Your task to perform on an android device: turn off improve location accuracy Image 0: 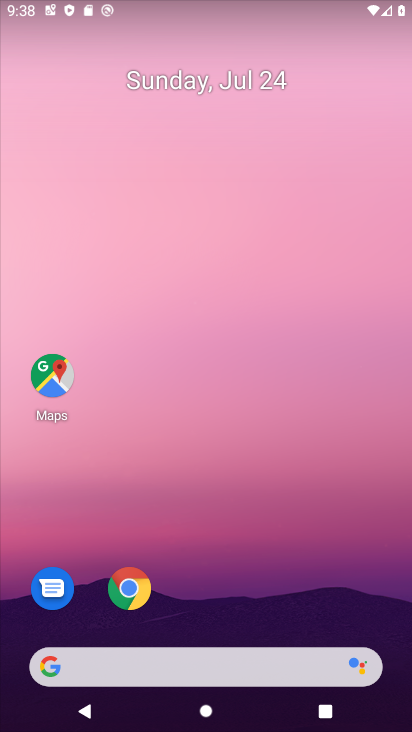
Step 0: drag from (264, 643) to (261, 1)
Your task to perform on an android device: turn off improve location accuracy Image 1: 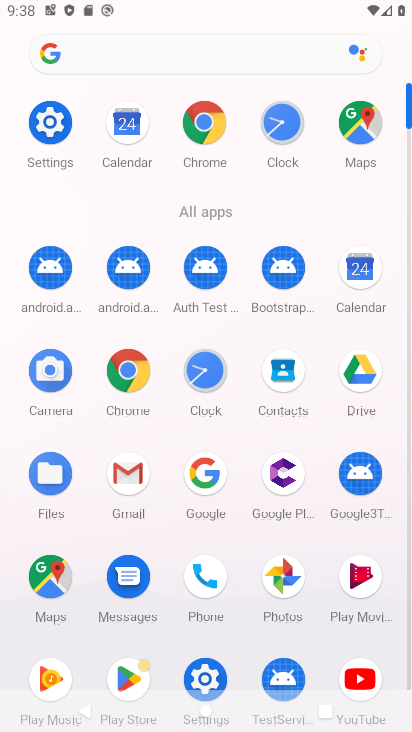
Step 1: click (40, 120)
Your task to perform on an android device: turn off improve location accuracy Image 2: 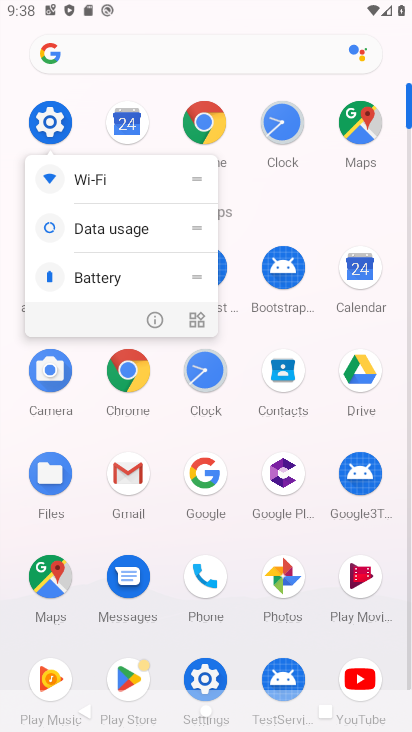
Step 2: click (40, 120)
Your task to perform on an android device: turn off improve location accuracy Image 3: 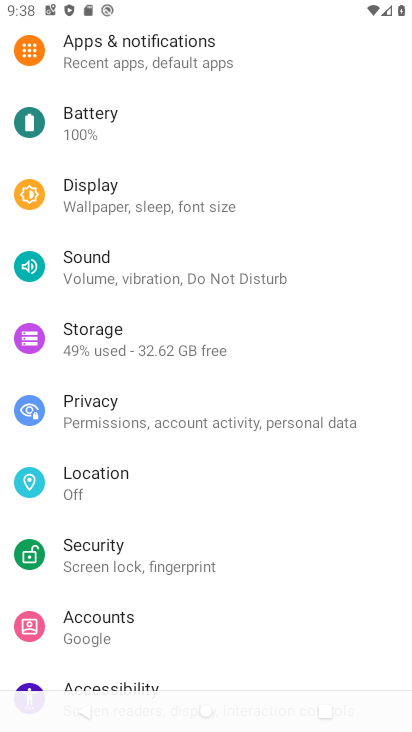
Step 3: click (99, 474)
Your task to perform on an android device: turn off improve location accuracy Image 4: 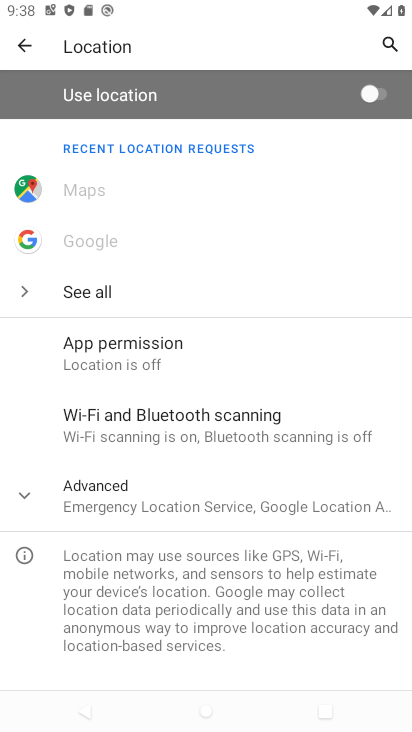
Step 4: click (12, 500)
Your task to perform on an android device: turn off improve location accuracy Image 5: 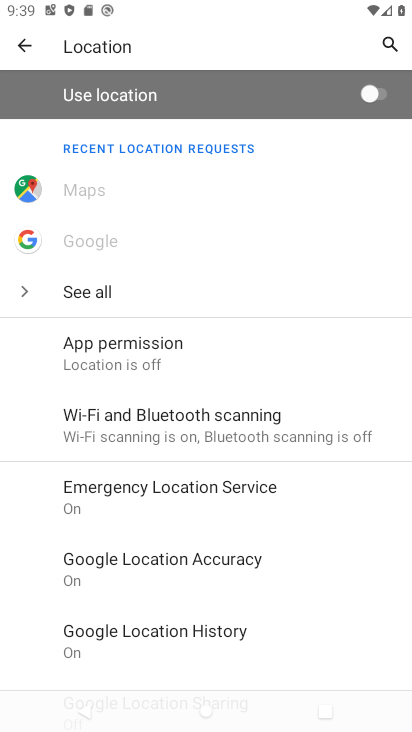
Step 5: click (154, 556)
Your task to perform on an android device: turn off improve location accuracy Image 6: 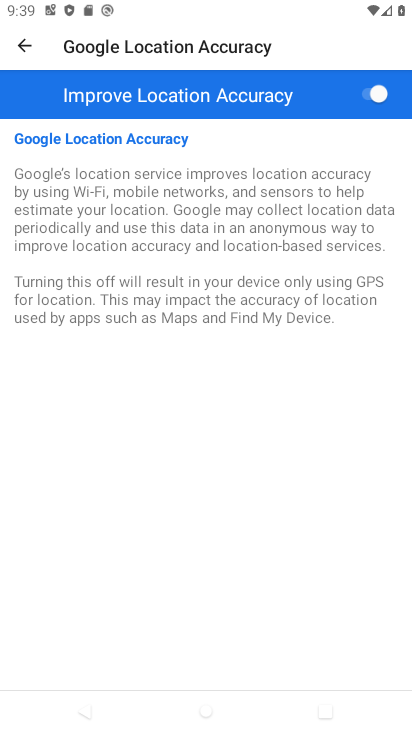
Step 6: click (385, 93)
Your task to perform on an android device: turn off improve location accuracy Image 7: 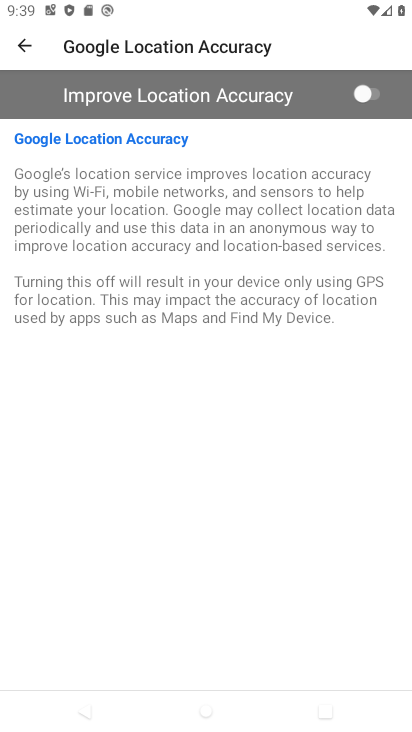
Step 7: task complete